Your task to perform on an android device: set the timer Image 0: 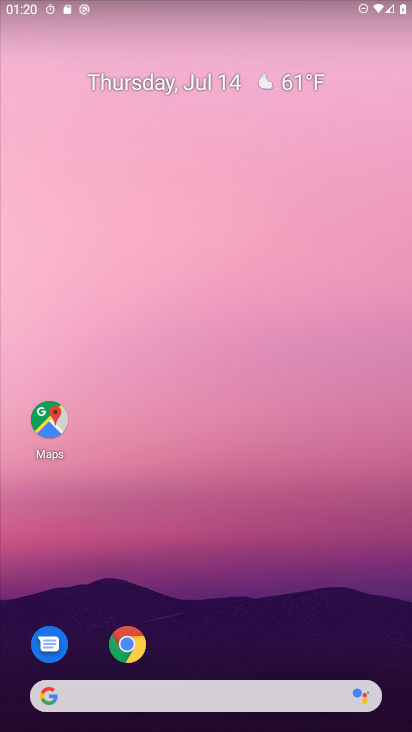
Step 0: drag from (315, 577) to (234, 85)
Your task to perform on an android device: set the timer Image 1: 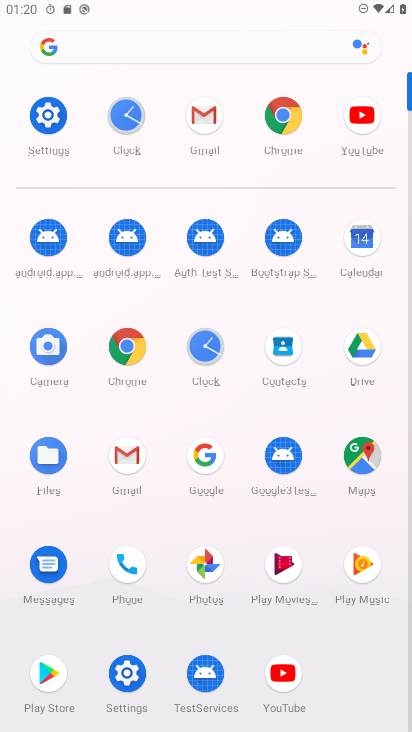
Step 1: click (209, 347)
Your task to perform on an android device: set the timer Image 2: 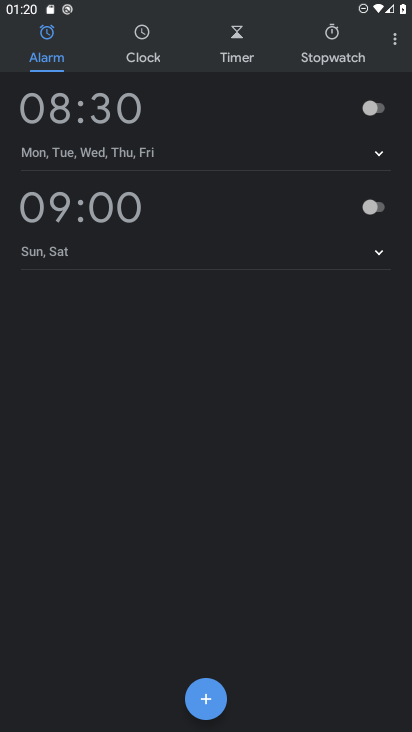
Step 2: click (242, 51)
Your task to perform on an android device: set the timer Image 3: 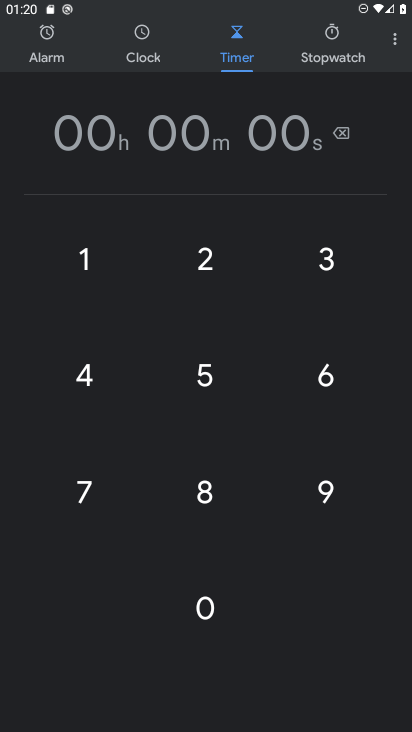
Step 3: click (219, 363)
Your task to perform on an android device: set the timer Image 4: 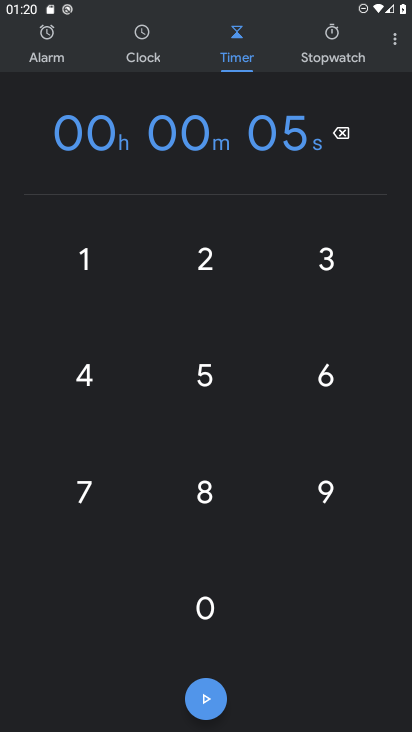
Step 4: task complete